Your task to perform on an android device: Open Chrome and go to settings Image 0: 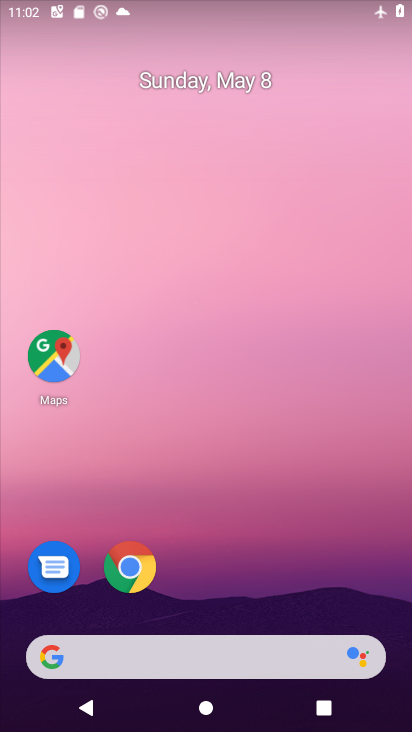
Step 0: click (140, 587)
Your task to perform on an android device: Open Chrome and go to settings Image 1: 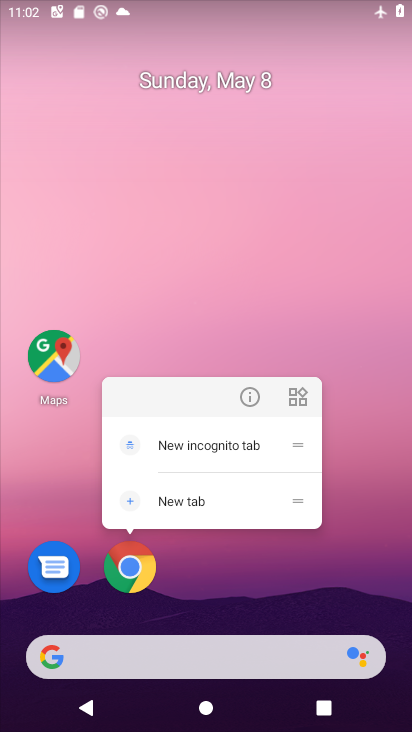
Step 1: click (123, 586)
Your task to perform on an android device: Open Chrome and go to settings Image 2: 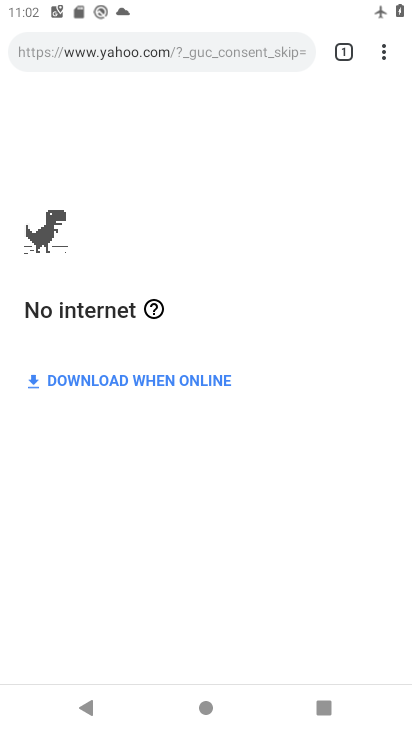
Step 2: click (385, 53)
Your task to perform on an android device: Open Chrome and go to settings Image 3: 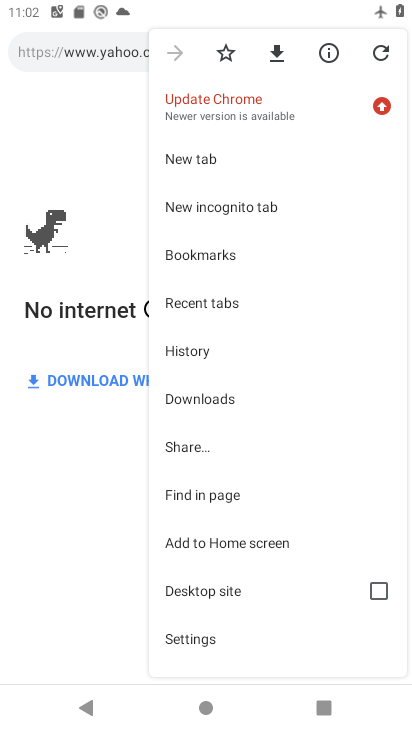
Step 3: click (206, 640)
Your task to perform on an android device: Open Chrome and go to settings Image 4: 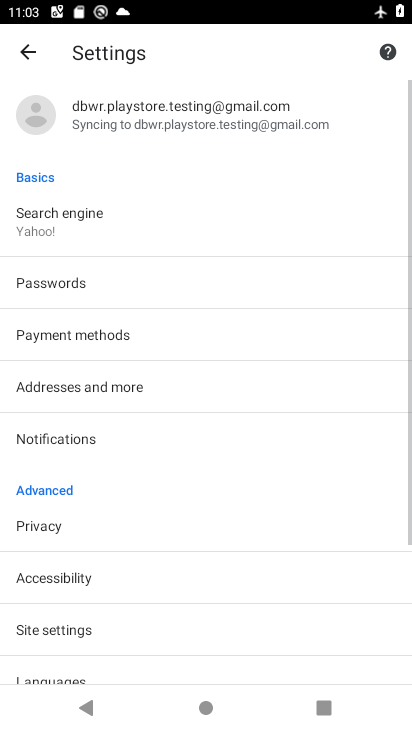
Step 4: task complete